Your task to perform on an android device: Show me popular videos on Youtube Image 0: 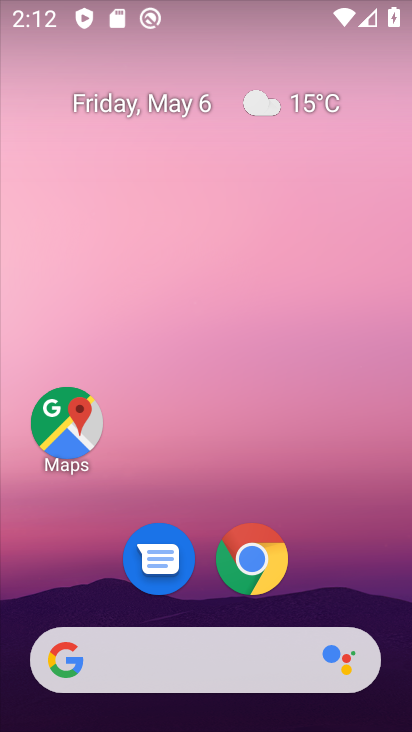
Step 0: drag from (338, 556) to (301, 106)
Your task to perform on an android device: Show me popular videos on Youtube Image 1: 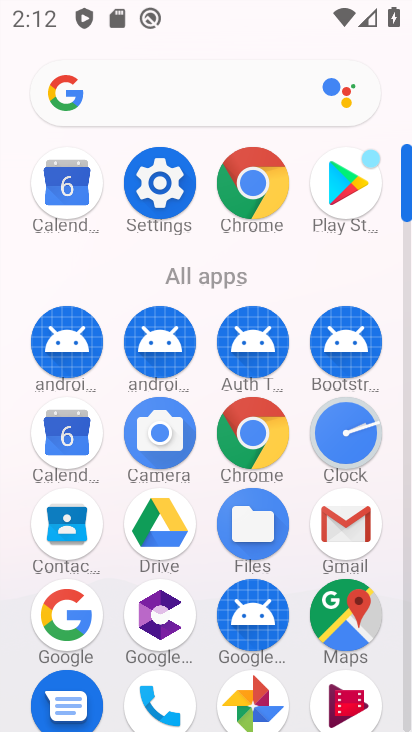
Step 1: click (407, 721)
Your task to perform on an android device: Show me popular videos on Youtube Image 2: 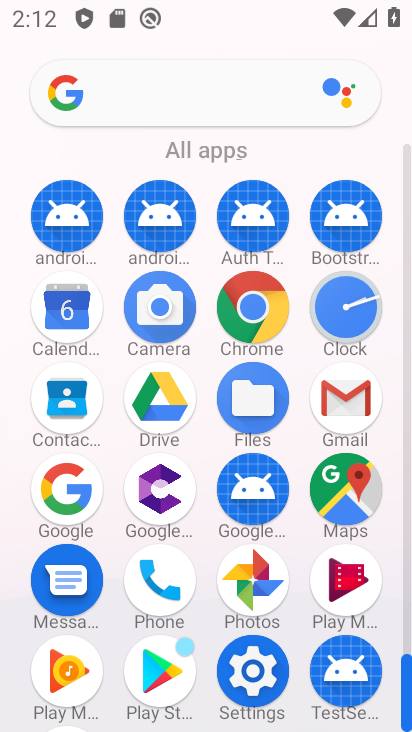
Step 2: drag from (405, 693) to (405, 619)
Your task to perform on an android device: Show me popular videos on Youtube Image 3: 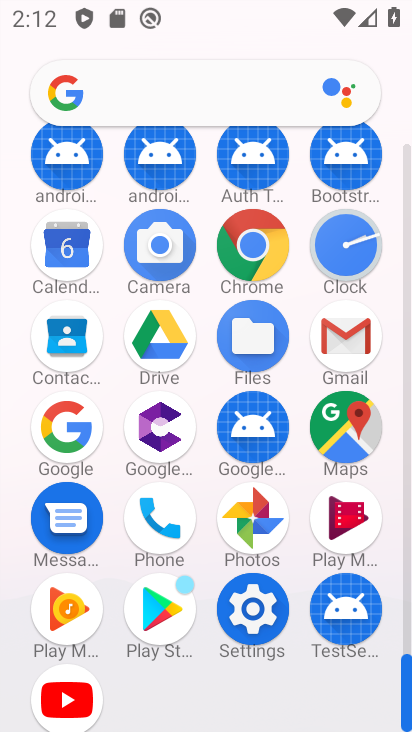
Step 3: click (75, 704)
Your task to perform on an android device: Show me popular videos on Youtube Image 4: 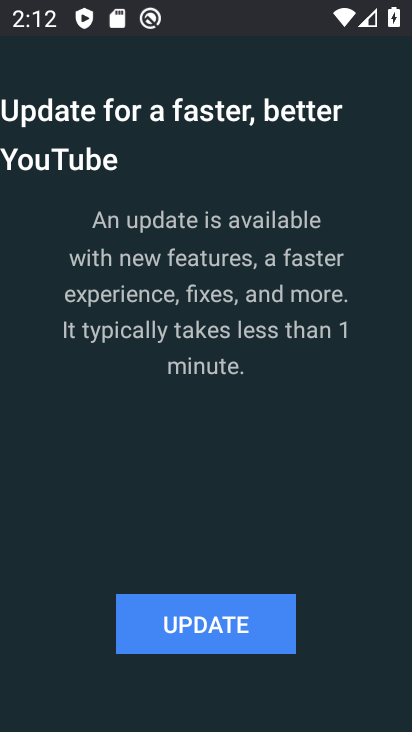
Step 4: click (182, 654)
Your task to perform on an android device: Show me popular videos on Youtube Image 5: 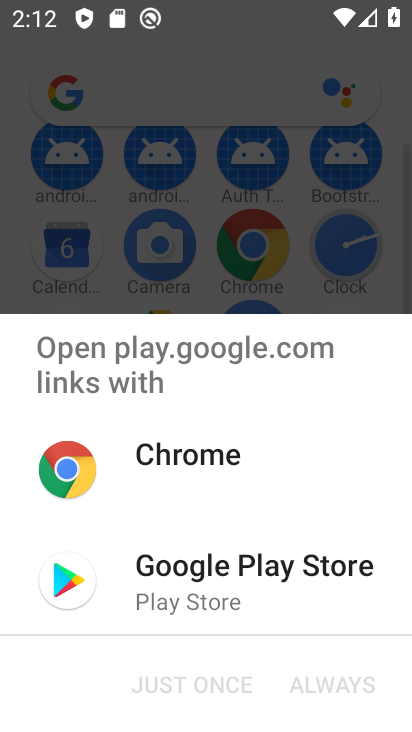
Step 5: click (254, 557)
Your task to perform on an android device: Show me popular videos on Youtube Image 6: 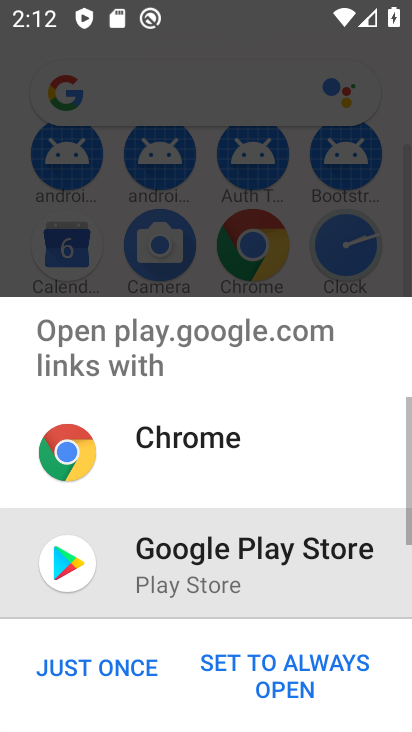
Step 6: click (95, 669)
Your task to perform on an android device: Show me popular videos on Youtube Image 7: 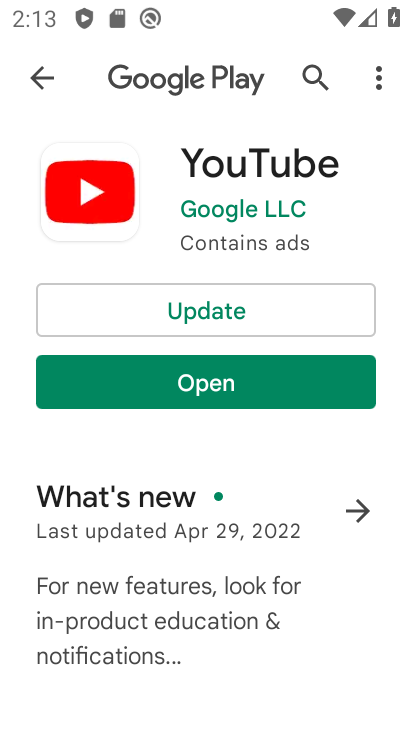
Step 7: click (223, 329)
Your task to perform on an android device: Show me popular videos on Youtube Image 8: 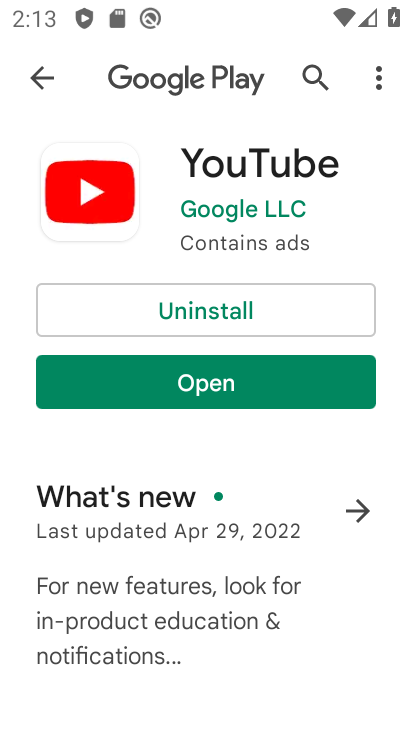
Step 8: click (292, 392)
Your task to perform on an android device: Show me popular videos on Youtube Image 9: 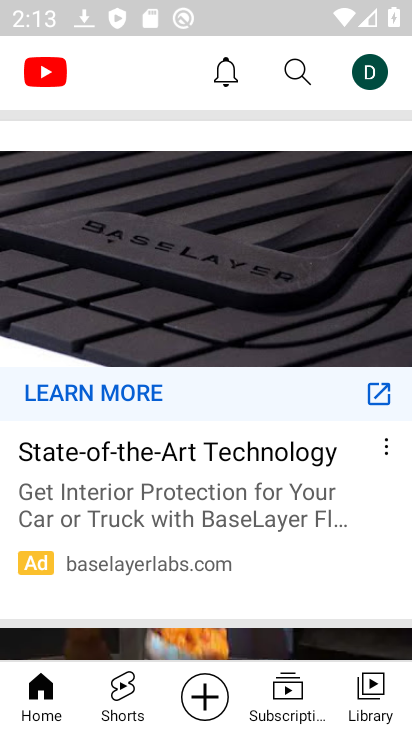
Step 9: click (375, 80)
Your task to perform on an android device: Show me popular videos on Youtube Image 10: 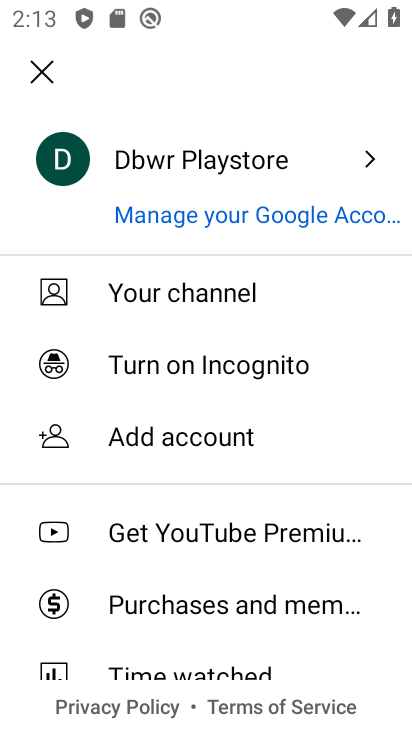
Step 10: click (53, 79)
Your task to perform on an android device: Show me popular videos on Youtube Image 11: 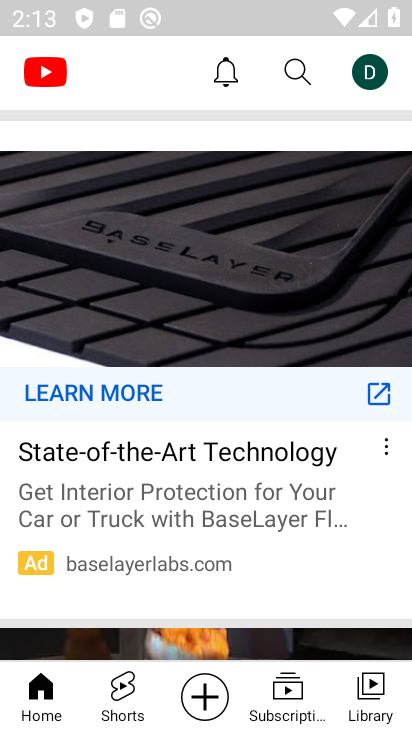
Step 11: task complete